Your task to perform on an android device: Search for seafood restaurants on Google Maps Image 0: 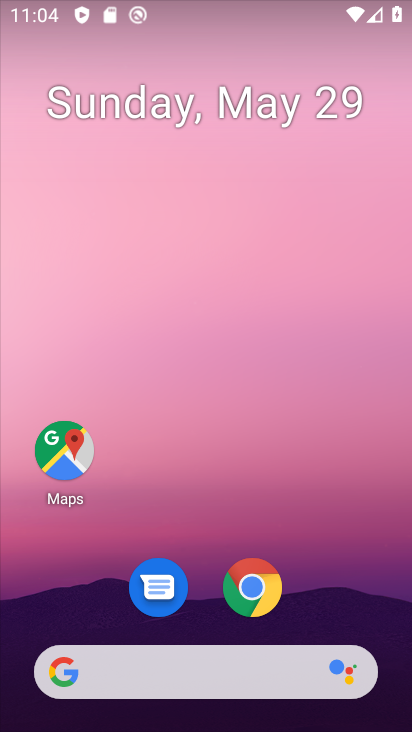
Step 0: drag from (225, 409) to (212, 53)
Your task to perform on an android device: Search for seafood restaurants on Google Maps Image 1: 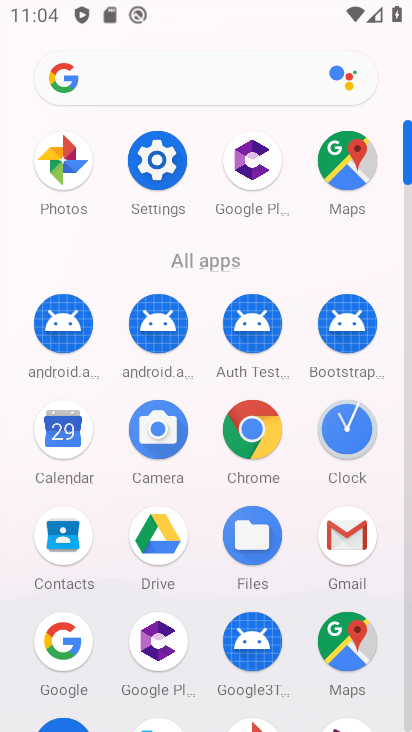
Step 1: click (340, 155)
Your task to perform on an android device: Search for seafood restaurants on Google Maps Image 2: 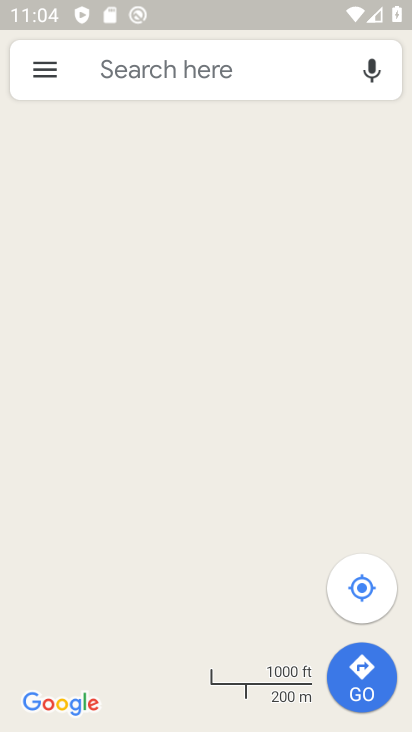
Step 2: click (44, 61)
Your task to perform on an android device: Search for seafood restaurants on Google Maps Image 3: 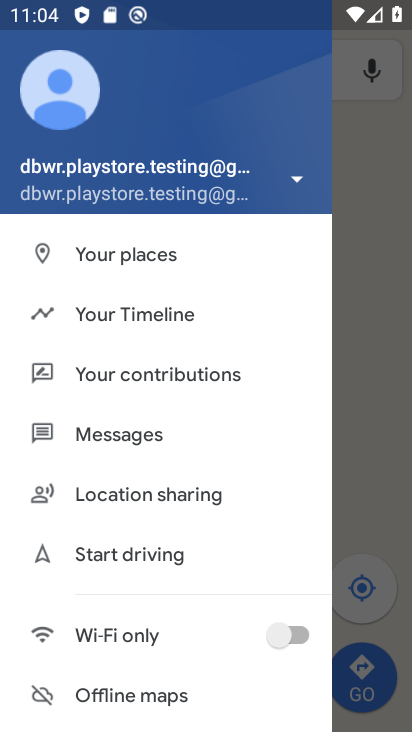
Step 3: click (377, 169)
Your task to perform on an android device: Search for seafood restaurants on Google Maps Image 4: 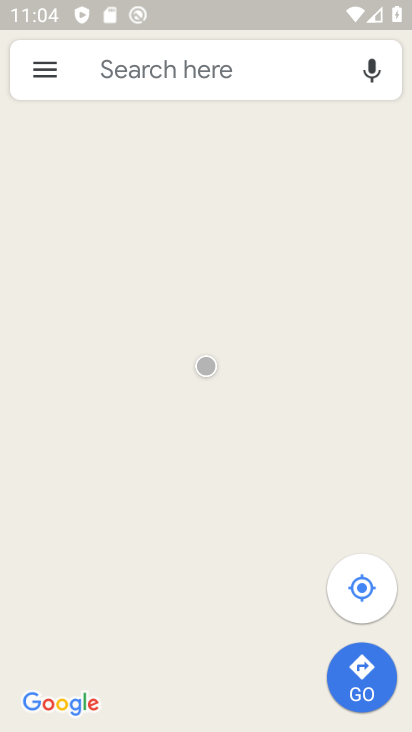
Step 4: click (284, 59)
Your task to perform on an android device: Search for seafood restaurants on Google Maps Image 5: 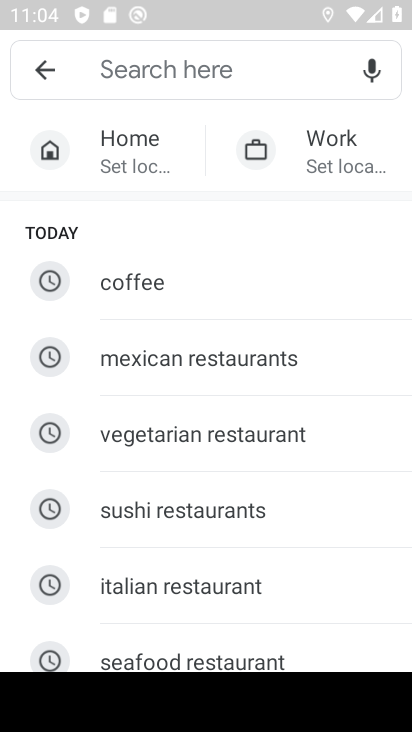
Step 5: type "seafood restaurant"
Your task to perform on an android device: Search for seafood restaurants on Google Maps Image 6: 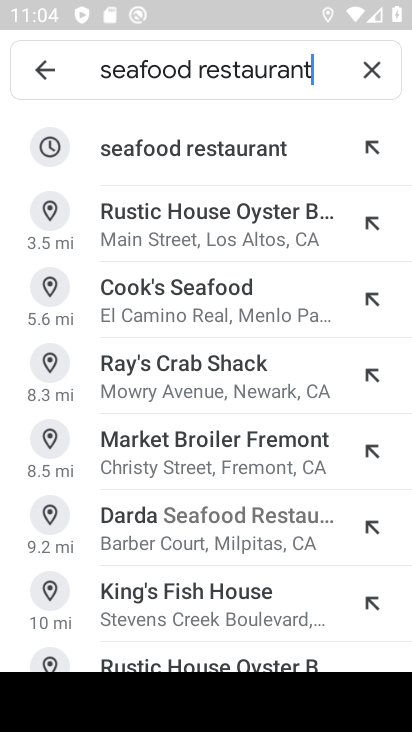
Step 6: type "s"
Your task to perform on an android device: Search for seafood restaurants on Google Maps Image 7: 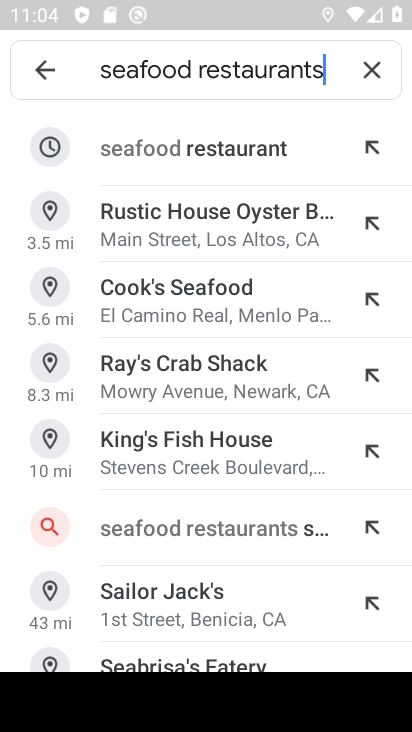
Step 7: press enter
Your task to perform on an android device: Search for seafood restaurants on Google Maps Image 8: 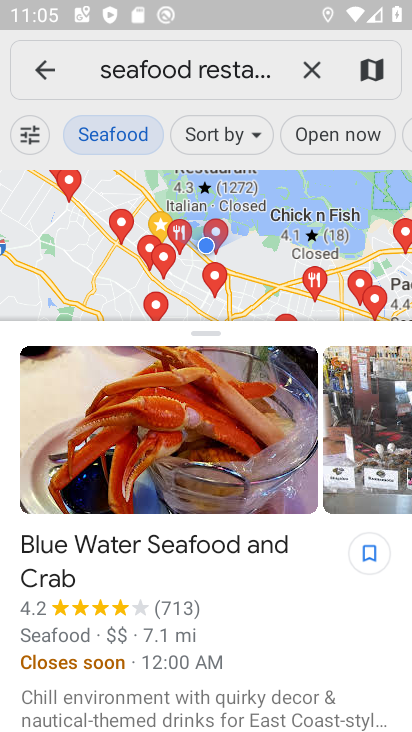
Step 8: task complete